Your task to perform on an android device: toggle location history Image 0: 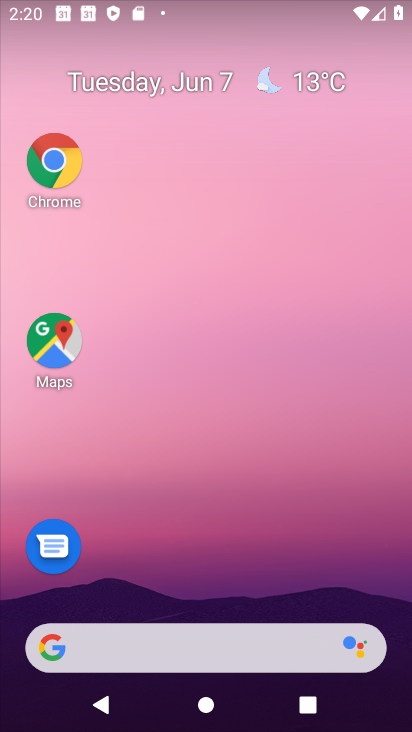
Step 0: drag from (305, 127) to (247, 67)
Your task to perform on an android device: toggle location history Image 1: 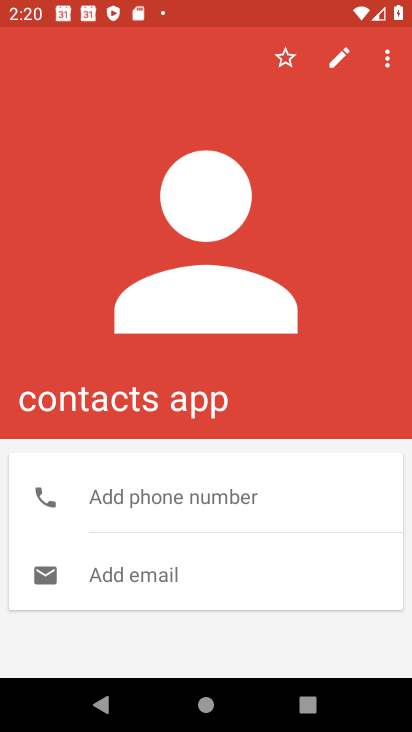
Step 1: press home button
Your task to perform on an android device: toggle location history Image 2: 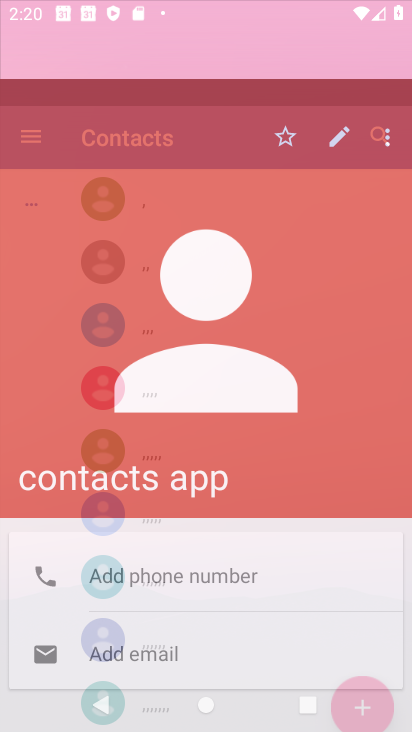
Step 2: drag from (152, 555) to (243, 15)
Your task to perform on an android device: toggle location history Image 3: 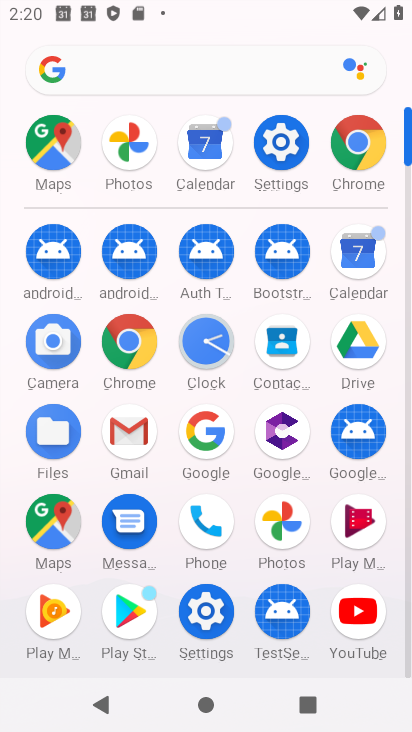
Step 3: click (280, 118)
Your task to perform on an android device: toggle location history Image 4: 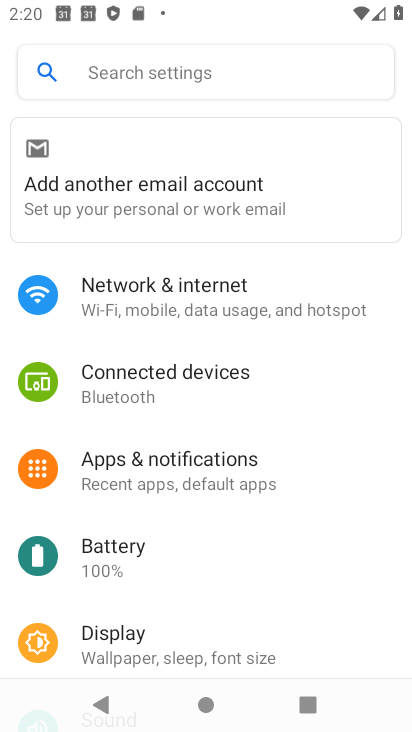
Step 4: drag from (183, 502) to (347, 67)
Your task to perform on an android device: toggle location history Image 5: 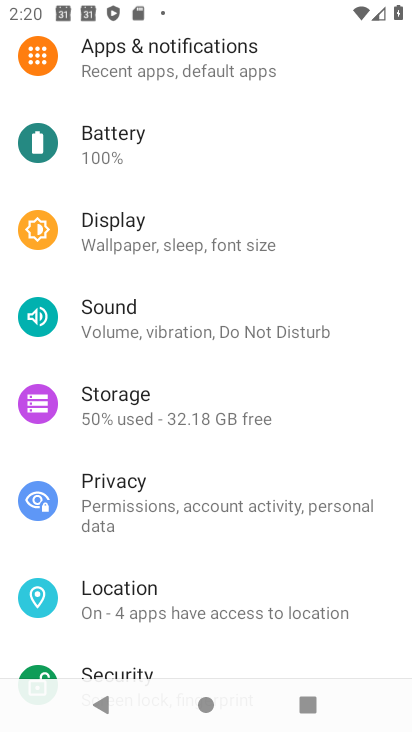
Step 5: drag from (142, 482) to (330, 79)
Your task to perform on an android device: toggle location history Image 6: 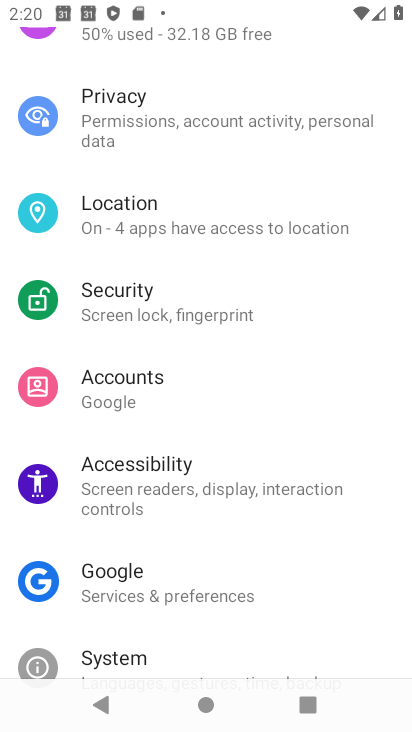
Step 6: click (159, 232)
Your task to perform on an android device: toggle location history Image 7: 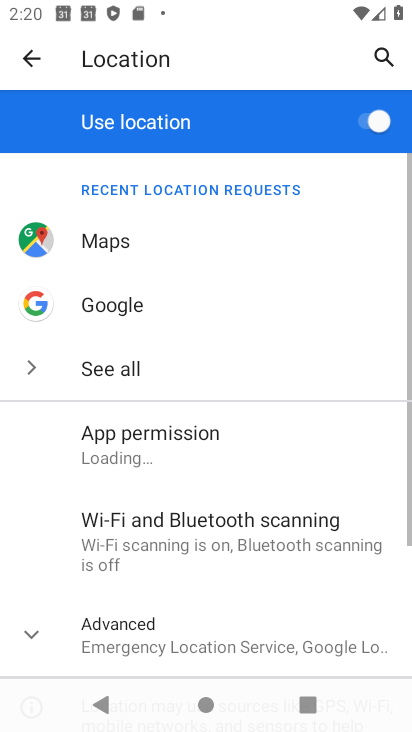
Step 7: drag from (252, 548) to (319, 185)
Your task to perform on an android device: toggle location history Image 8: 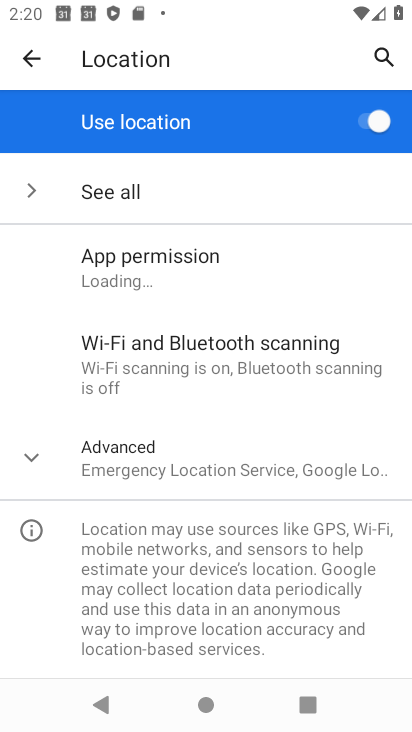
Step 8: click (178, 494)
Your task to perform on an android device: toggle location history Image 9: 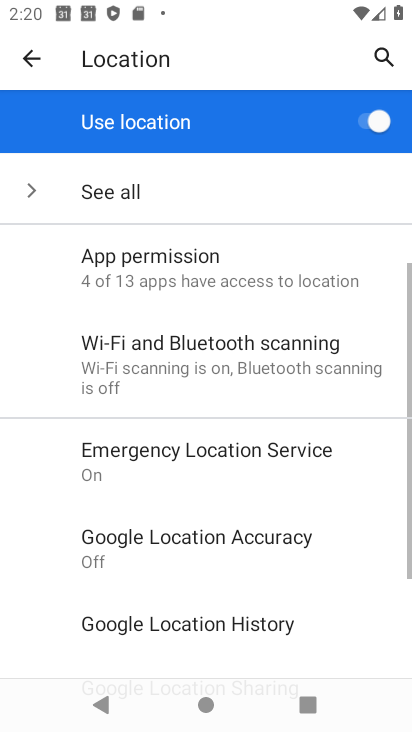
Step 9: drag from (202, 476) to (309, 123)
Your task to perform on an android device: toggle location history Image 10: 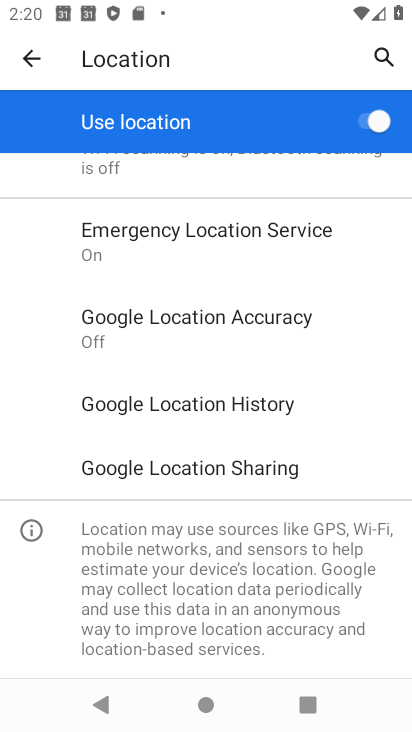
Step 10: click (217, 421)
Your task to perform on an android device: toggle location history Image 11: 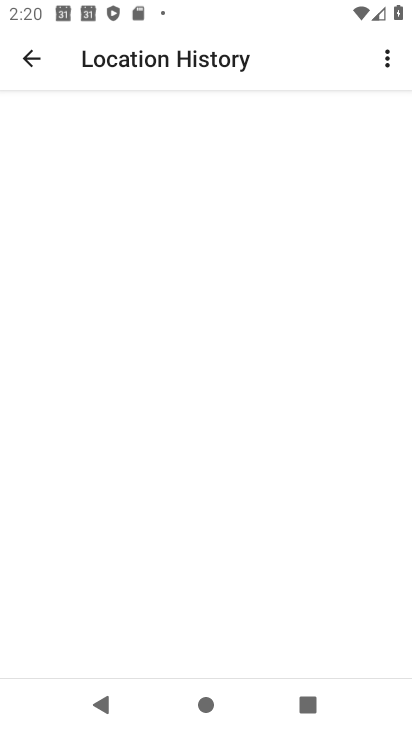
Step 11: drag from (229, 335) to (106, 1)
Your task to perform on an android device: toggle location history Image 12: 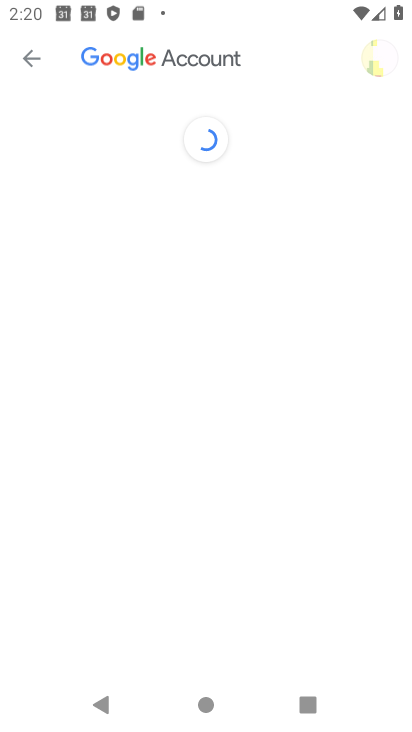
Step 12: drag from (196, 503) to (260, 103)
Your task to perform on an android device: toggle location history Image 13: 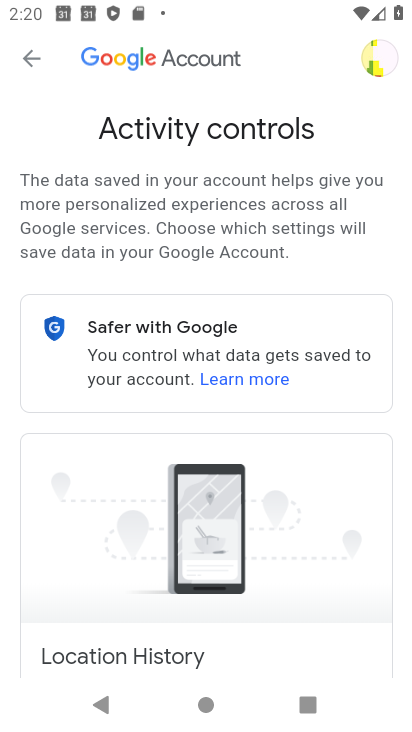
Step 13: drag from (258, 524) to (311, 53)
Your task to perform on an android device: toggle location history Image 14: 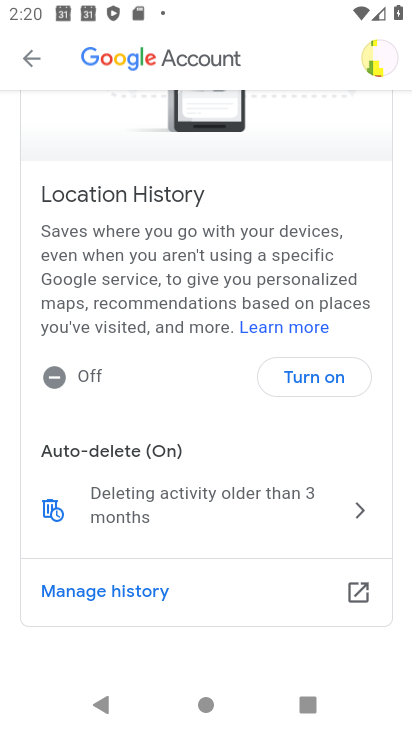
Step 14: click (314, 371)
Your task to perform on an android device: toggle location history Image 15: 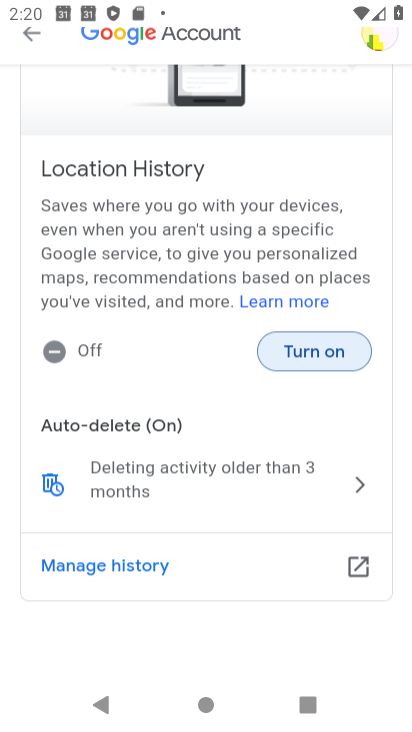
Step 15: drag from (241, 447) to (360, 5)
Your task to perform on an android device: toggle location history Image 16: 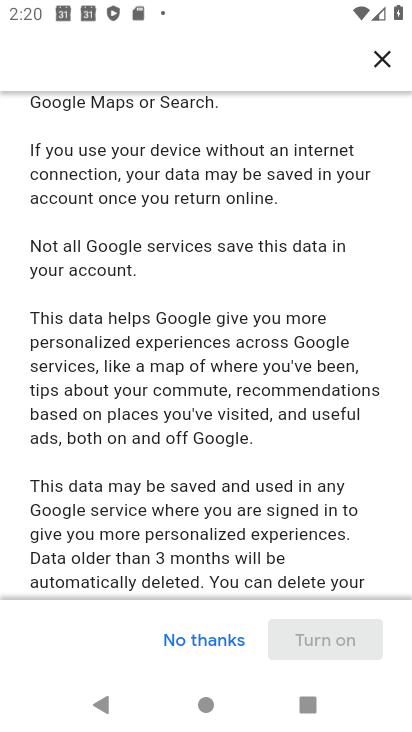
Step 16: drag from (210, 407) to (356, 20)
Your task to perform on an android device: toggle location history Image 17: 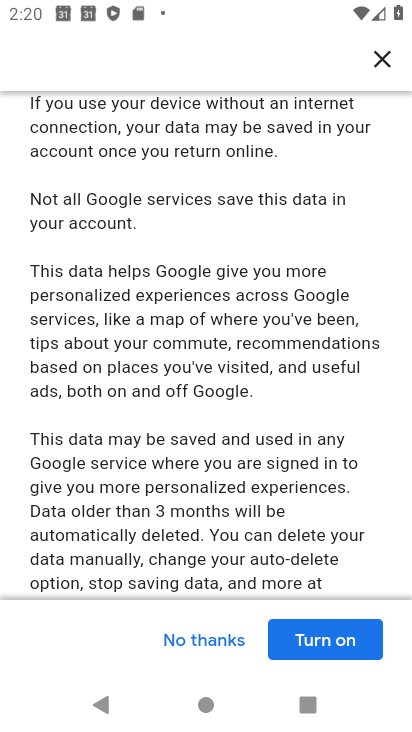
Step 17: drag from (187, 548) to (269, 312)
Your task to perform on an android device: toggle location history Image 18: 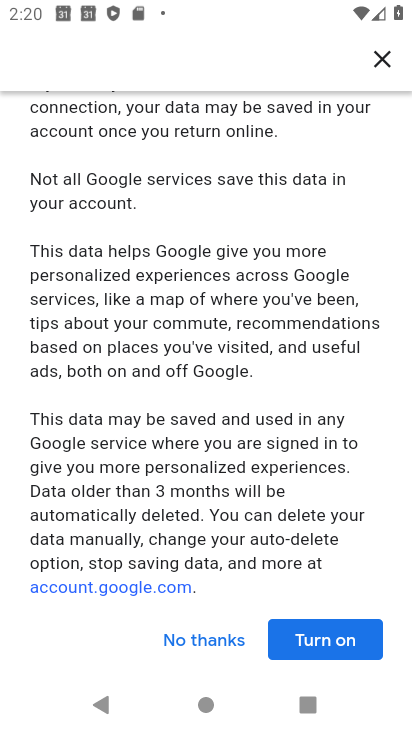
Step 18: click (332, 643)
Your task to perform on an android device: toggle location history Image 19: 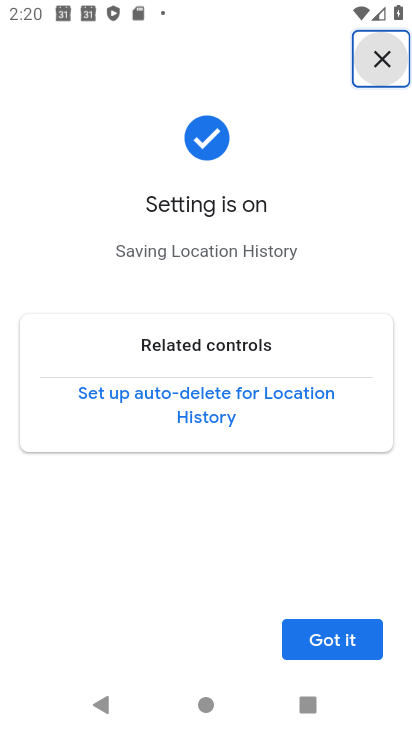
Step 19: click (324, 640)
Your task to perform on an android device: toggle location history Image 20: 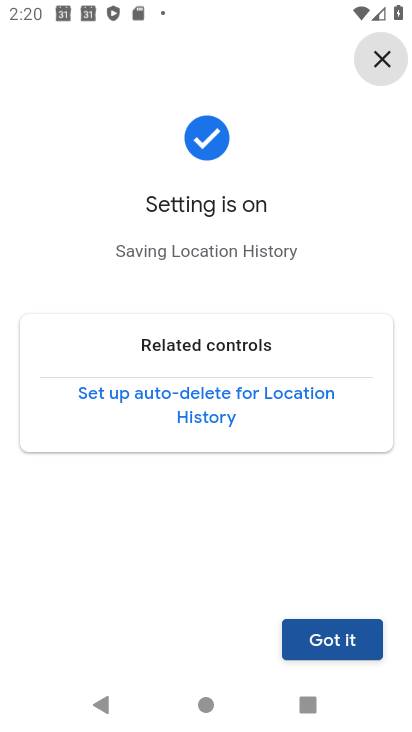
Step 20: task complete